Your task to perform on an android device: Open calendar and show me the first week of next month Image 0: 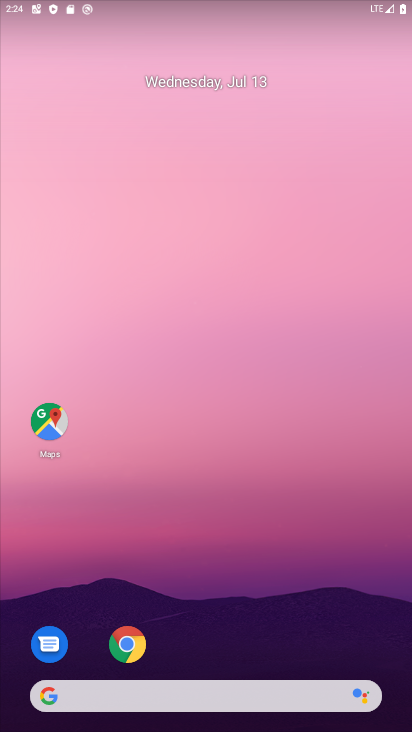
Step 0: drag from (262, 589) to (226, 32)
Your task to perform on an android device: Open calendar and show me the first week of next month Image 1: 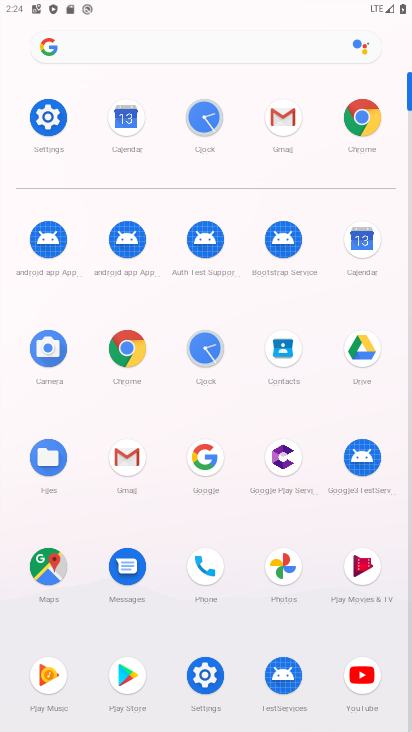
Step 1: click (361, 241)
Your task to perform on an android device: Open calendar and show me the first week of next month Image 2: 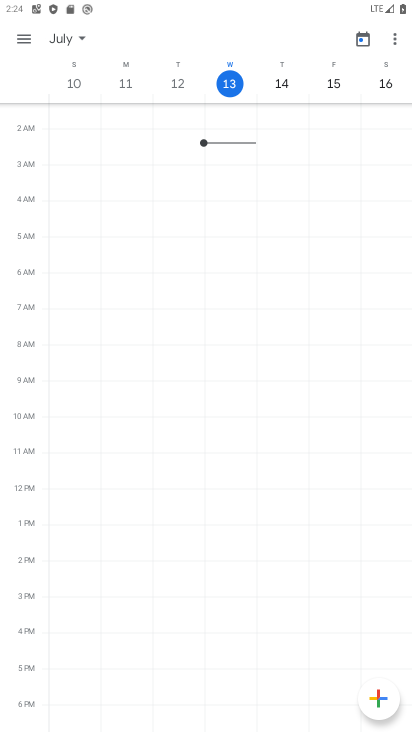
Step 2: click (68, 44)
Your task to perform on an android device: Open calendar and show me the first week of next month Image 3: 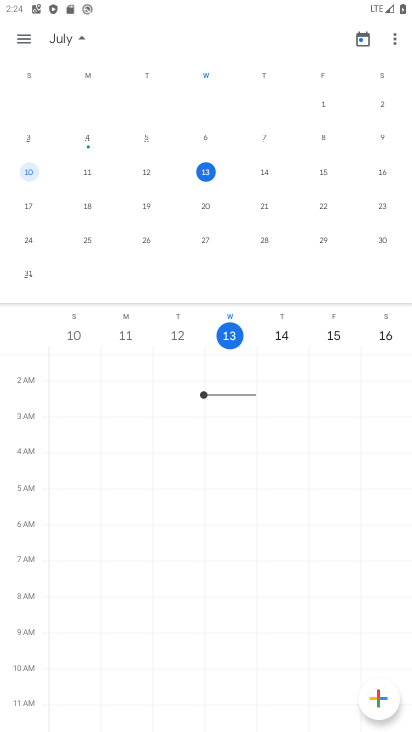
Step 3: task complete